Your task to perform on an android device: Set the phone to "Do not disturb". Image 0: 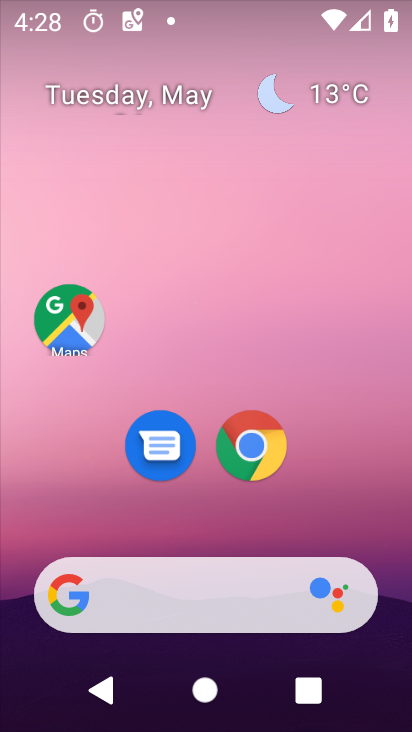
Step 0: drag from (183, 5) to (178, 489)
Your task to perform on an android device: Set the phone to "Do not disturb". Image 1: 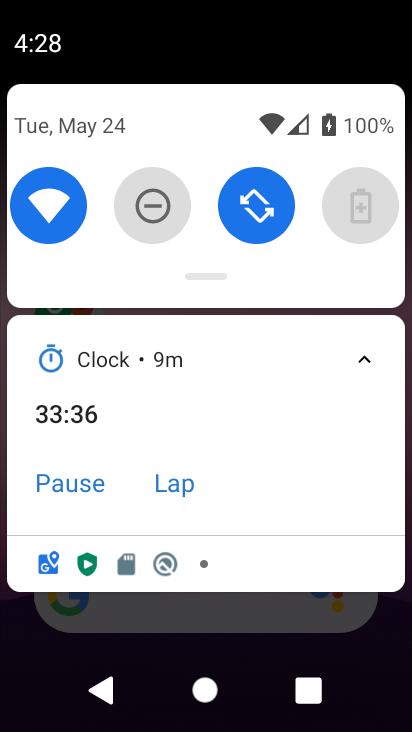
Step 1: click (153, 210)
Your task to perform on an android device: Set the phone to "Do not disturb". Image 2: 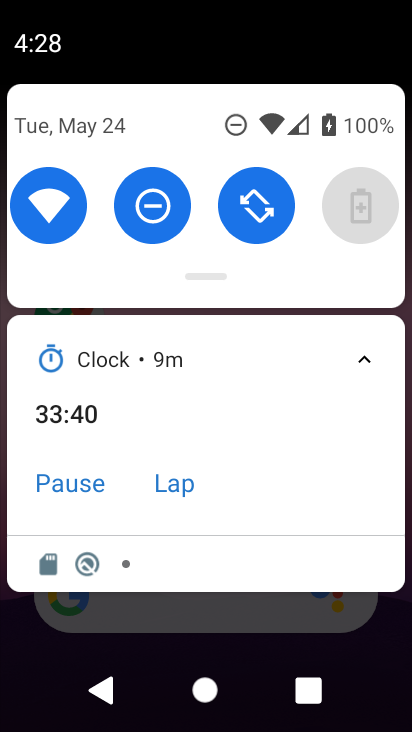
Step 2: click (184, 493)
Your task to perform on an android device: Set the phone to "Do not disturb". Image 3: 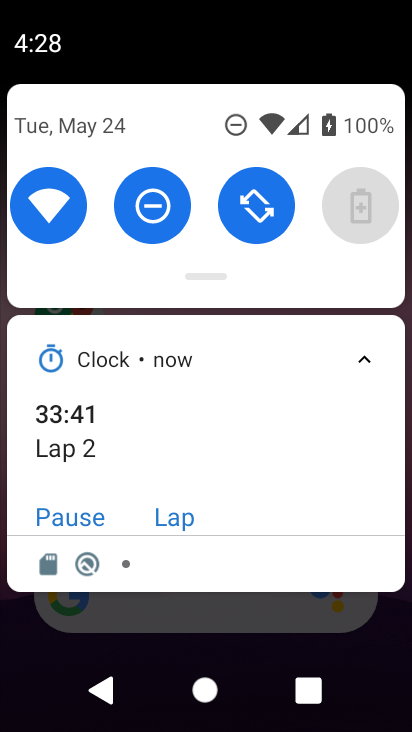
Step 3: task complete